Your task to perform on an android device: Go to Google maps Image 0: 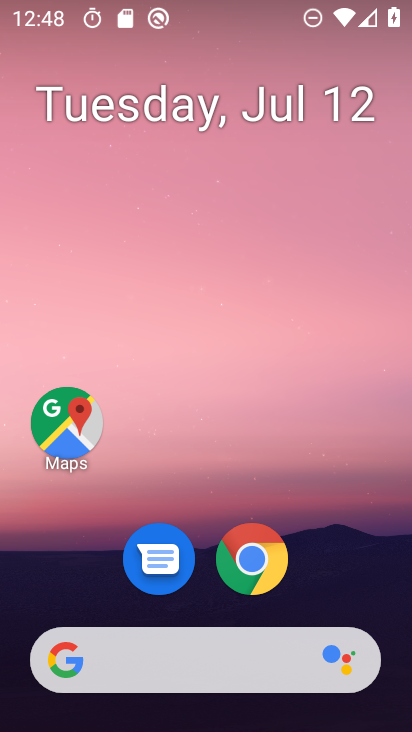
Step 0: click (58, 418)
Your task to perform on an android device: Go to Google maps Image 1: 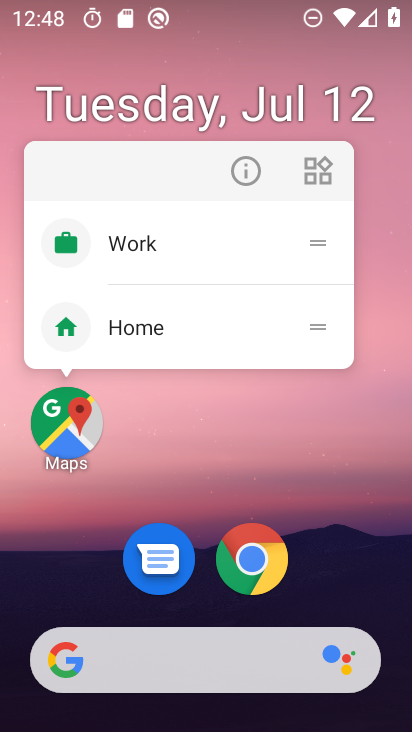
Step 1: click (63, 434)
Your task to perform on an android device: Go to Google maps Image 2: 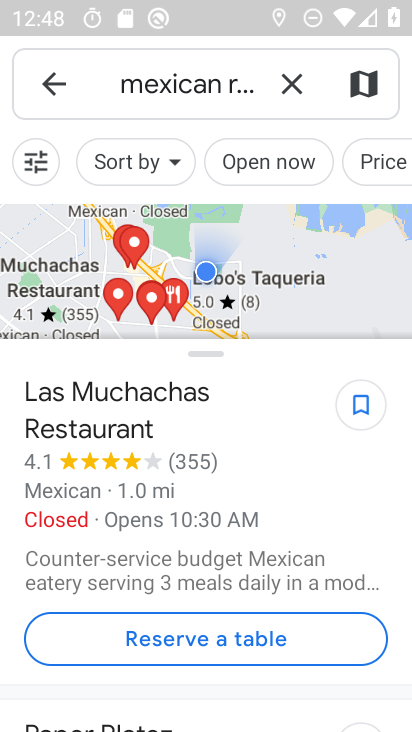
Step 2: task complete